Your task to perform on an android device: snooze an email in the gmail app Image 0: 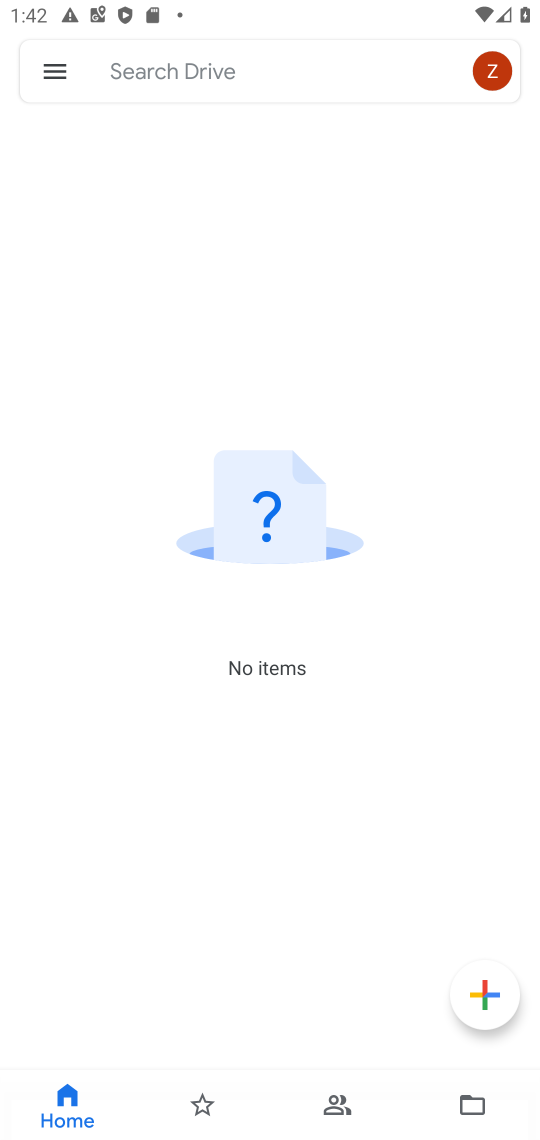
Step 0: press home button
Your task to perform on an android device: snooze an email in the gmail app Image 1: 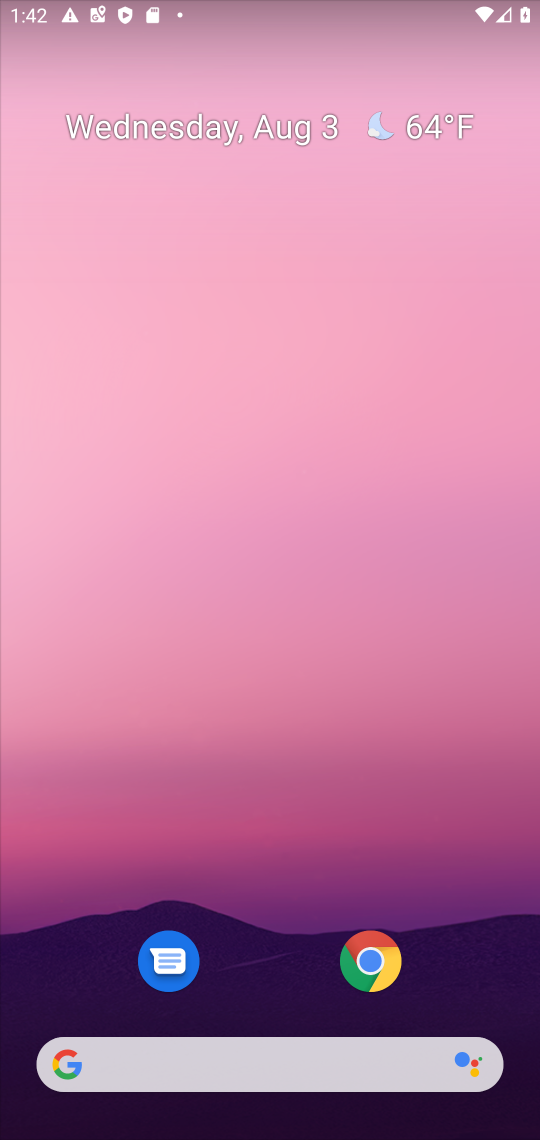
Step 1: drag from (268, 953) to (312, 45)
Your task to perform on an android device: snooze an email in the gmail app Image 2: 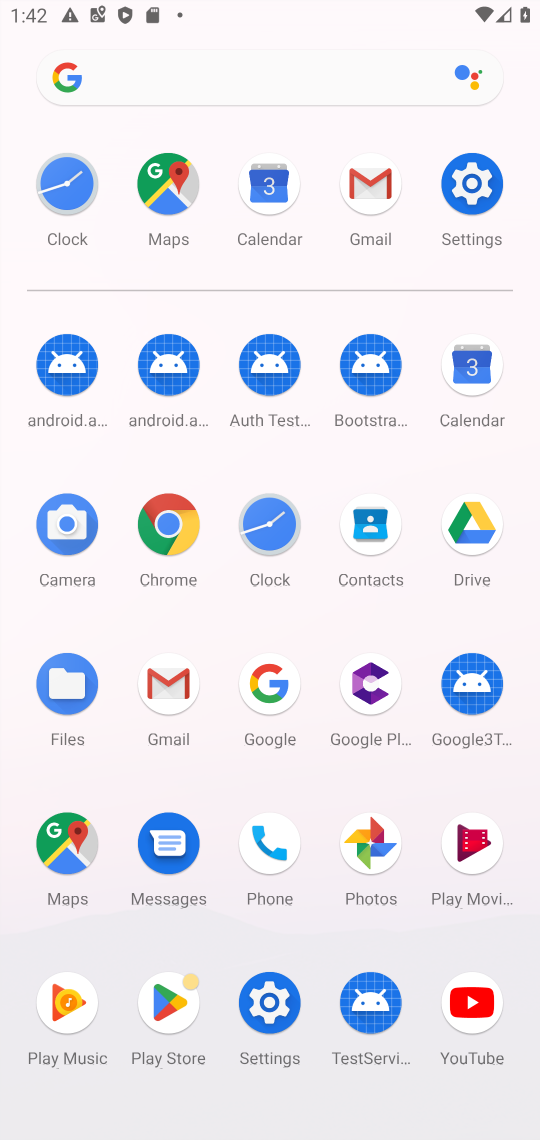
Step 2: click (376, 187)
Your task to perform on an android device: snooze an email in the gmail app Image 3: 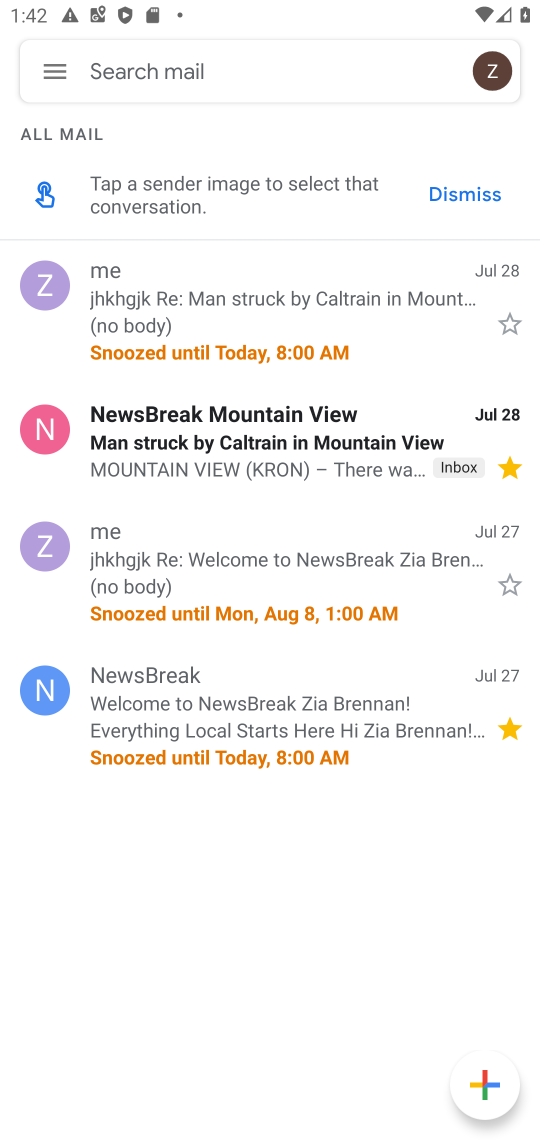
Step 3: click (186, 452)
Your task to perform on an android device: snooze an email in the gmail app Image 4: 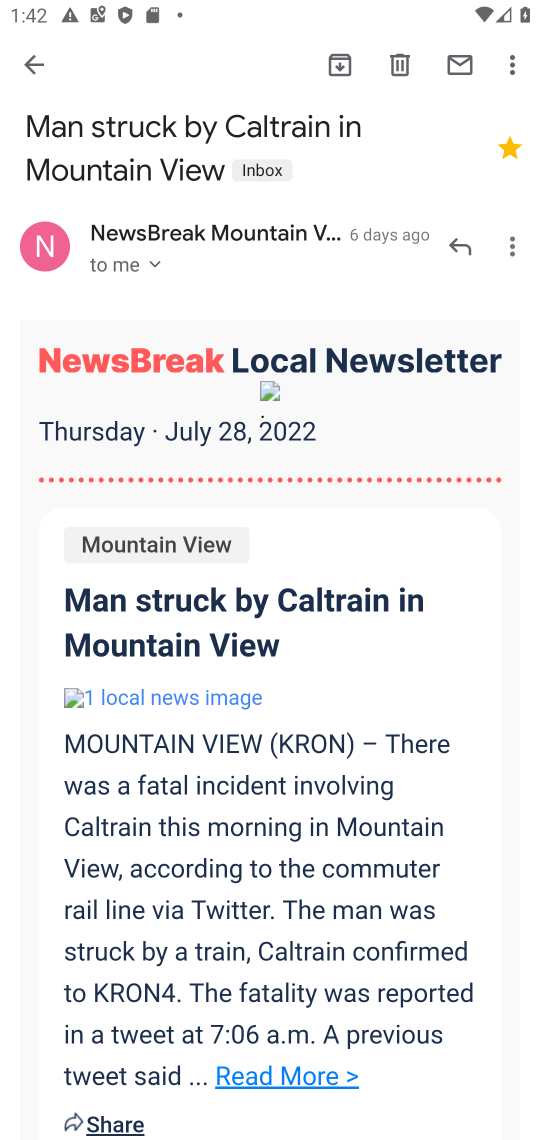
Step 4: click (509, 59)
Your task to perform on an android device: snooze an email in the gmail app Image 5: 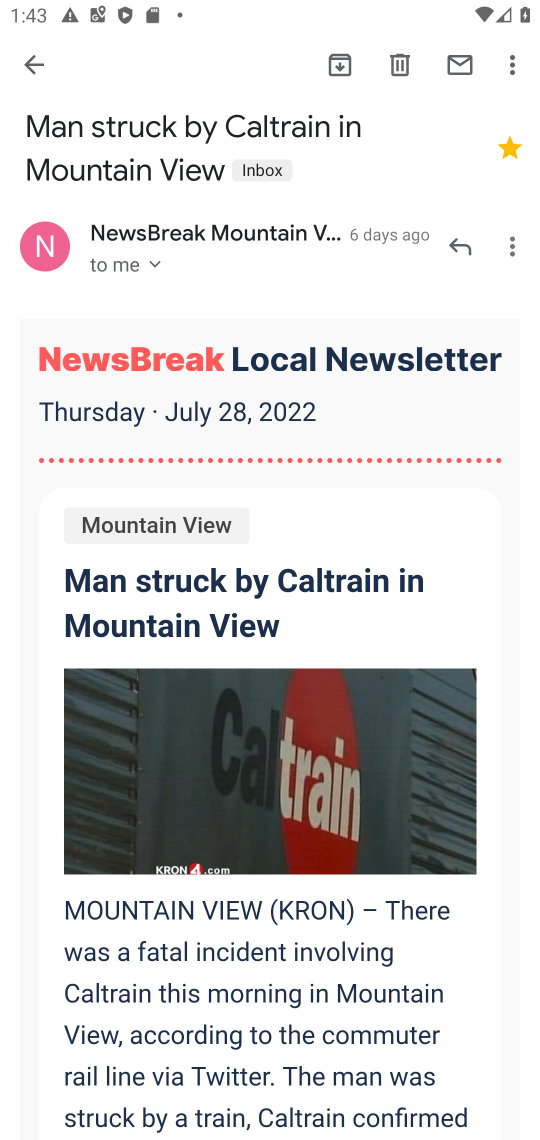
Step 5: click (511, 61)
Your task to perform on an android device: snooze an email in the gmail app Image 6: 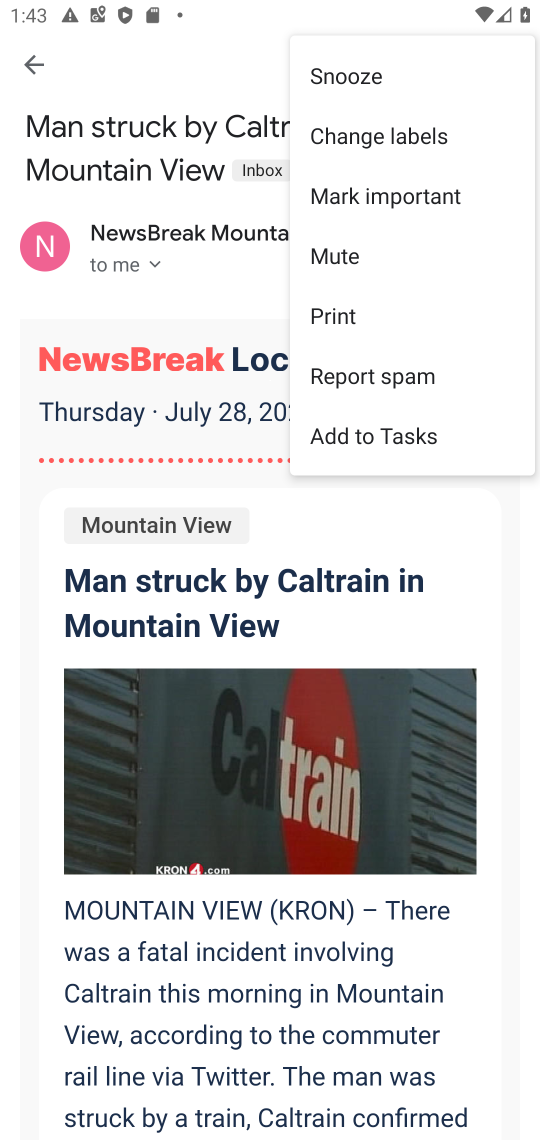
Step 6: click (362, 90)
Your task to perform on an android device: snooze an email in the gmail app Image 7: 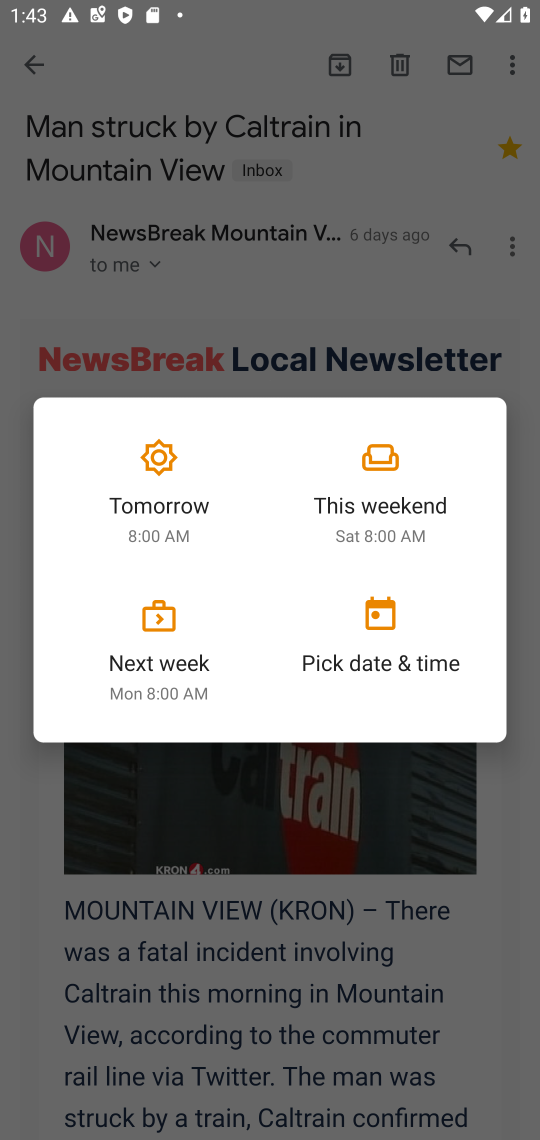
Step 7: click (181, 486)
Your task to perform on an android device: snooze an email in the gmail app Image 8: 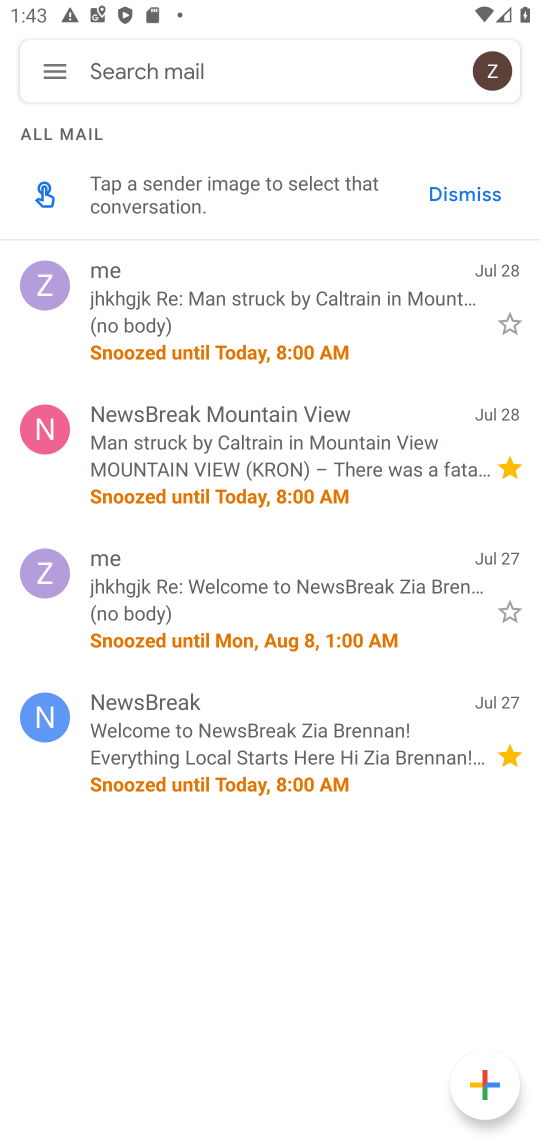
Step 8: task complete